Your task to perform on an android device: toggle sleep mode Image 0: 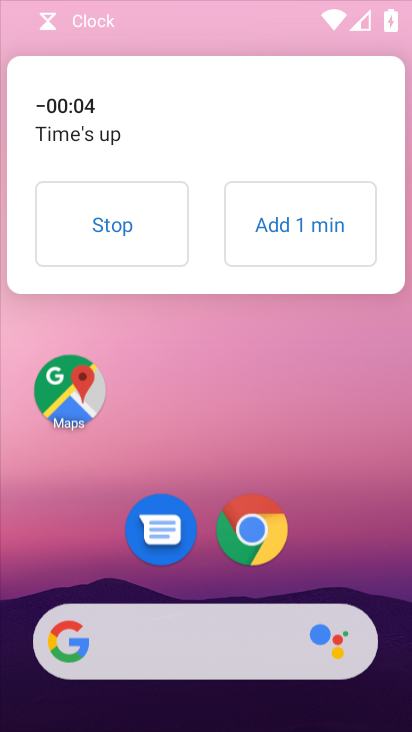
Step 0: click (110, 203)
Your task to perform on an android device: toggle sleep mode Image 1: 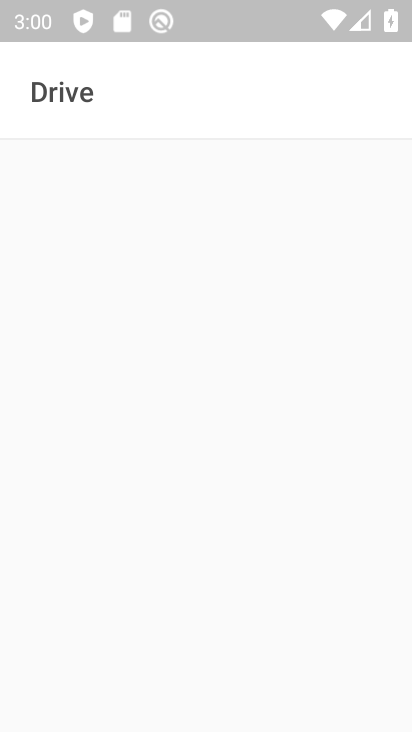
Step 1: press home button
Your task to perform on an android device: toggle sleep mode Image 2: 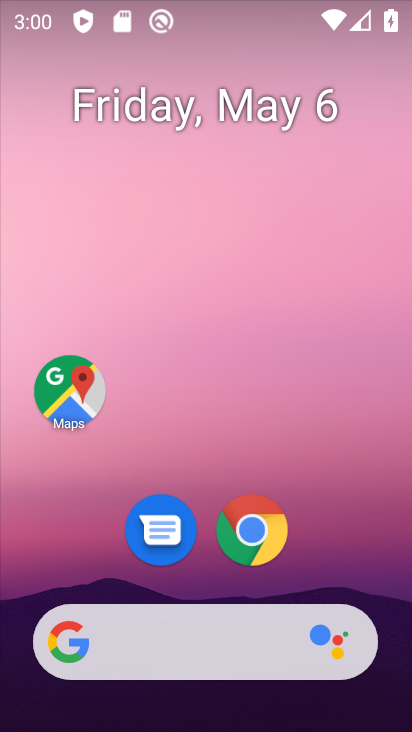
Step 2: drag from (255, 634) to (323, 11)
Your task to perform on an android device: toggle sleep mode Image 3: 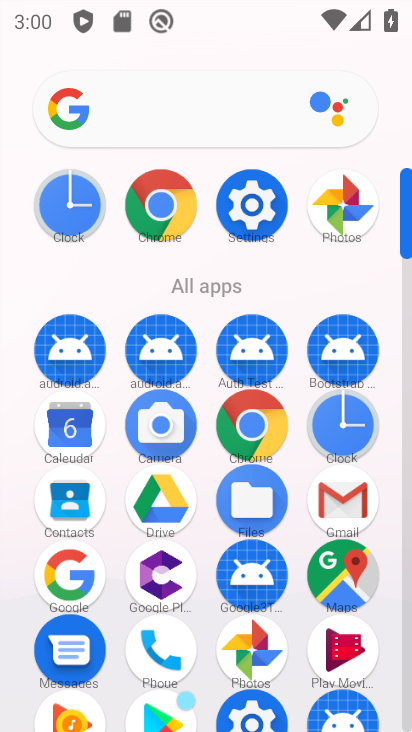
Step 3: click (244, 196)
Your task to perform on an android device: toggle sleep mode Image 4: 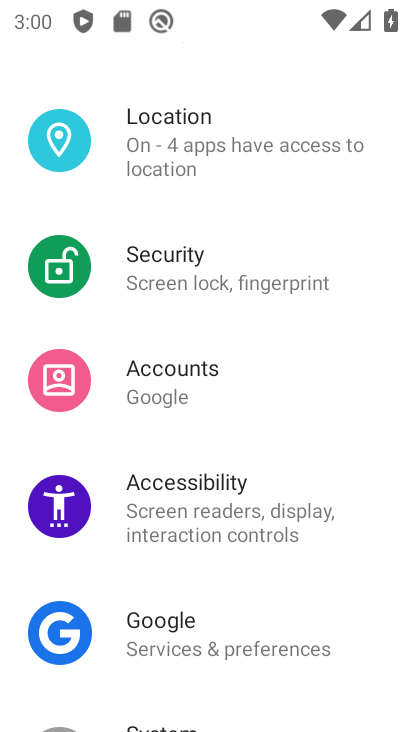
Step 4: drag from (169, 456) to (218, 67)
Your task to perform on an android device: toggle sleep mode Image 5: 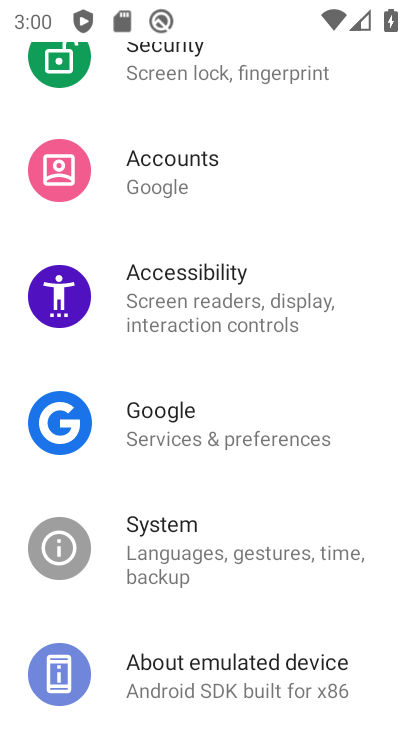
Step 5: drag from (214, 164) to (163, 699)
Your task to perform on an android device: toggle sleep mode Image 6: 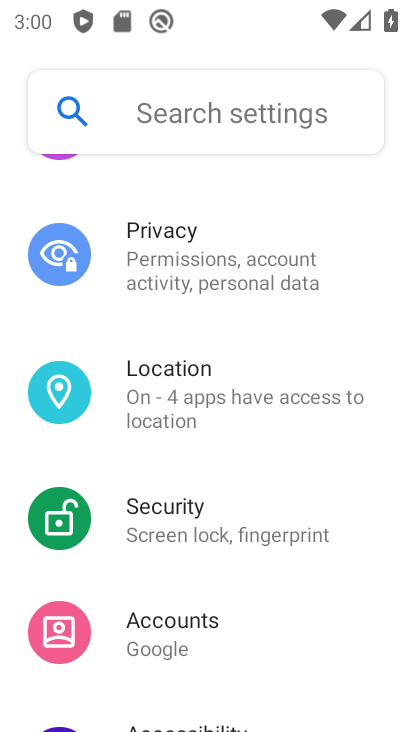
Step 6: drag from (165, 266) to (174, 628)
Your task to perform on an android device: toggle sleep mode Image 7: 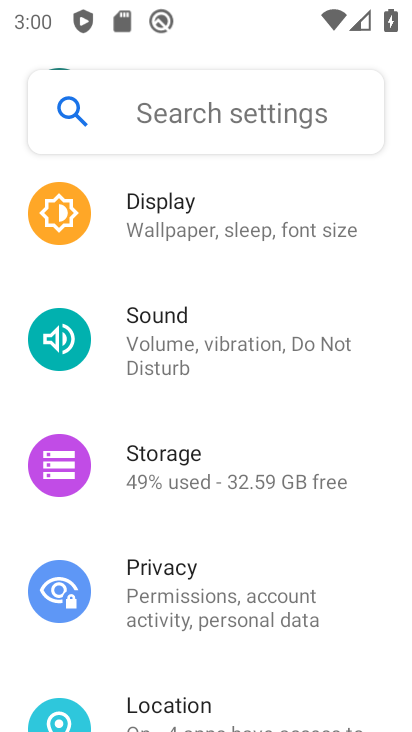
Step 7: drag from (167, 274) to (166, 580)
Your task to perform on an android device: toggle sleep mode Image 8: 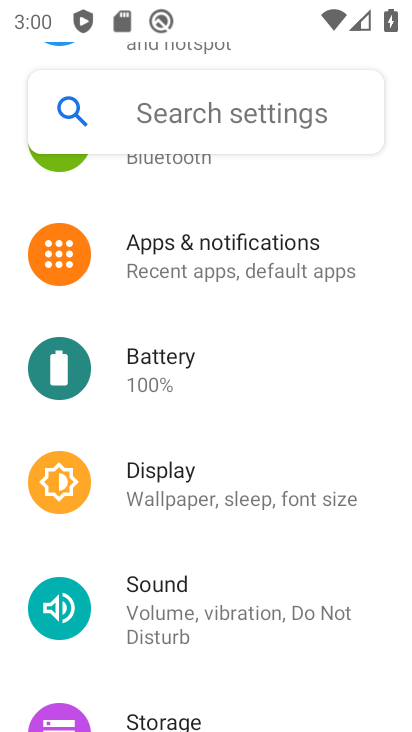
Step 8: click (195, 493)
Your task to perform on an android device: toggle sleep mode Image 9: 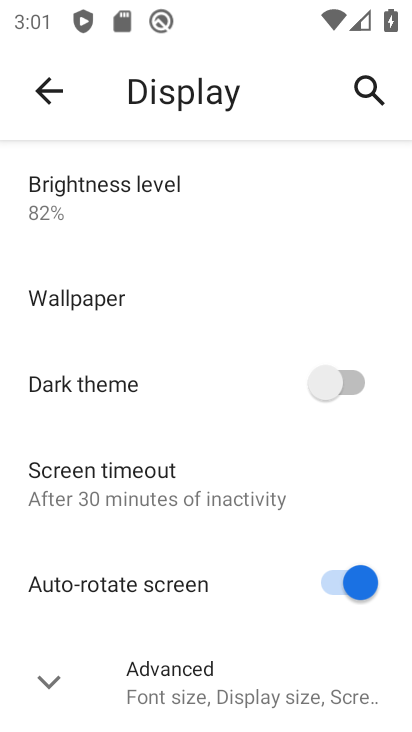
Step 9: click (238, 689)
Your task to perform on an android device: toggle sleep mode Image 10: 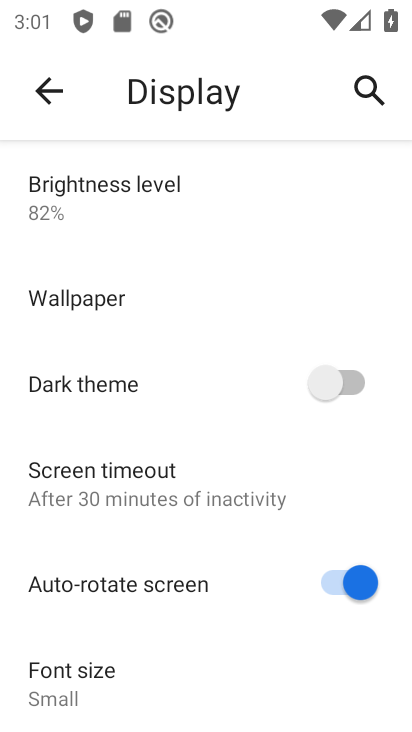
Step 10: task complete